Your task to perform on an android device: Search for vegetarian restaurants on Maps Image 0: 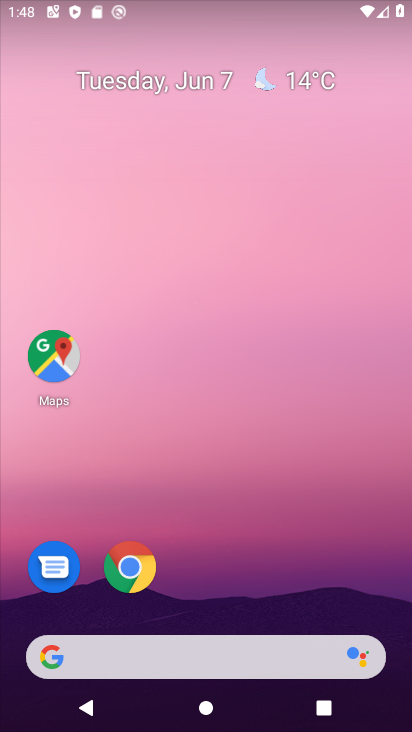
Step 0: drag from (275, 581) to (327, 3)
Your task to perform on an android device: Search for vegetarian restaurants on Maps Image 1: 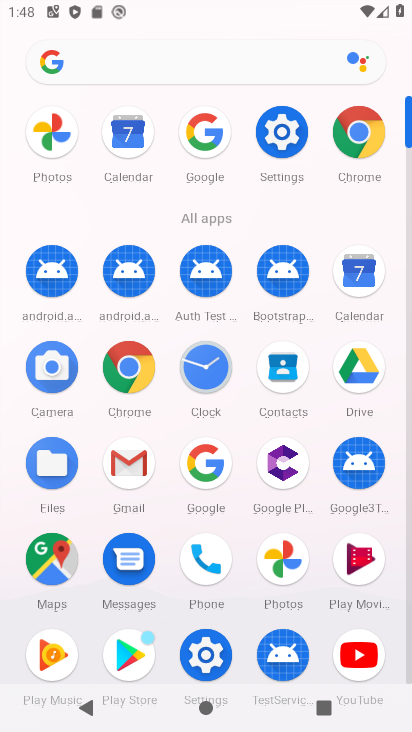
Step 1: drag from (398, 563) to (366, 145)
Your task to perform on an android device: Search for vegetarian restaurants on Maps Image 2: 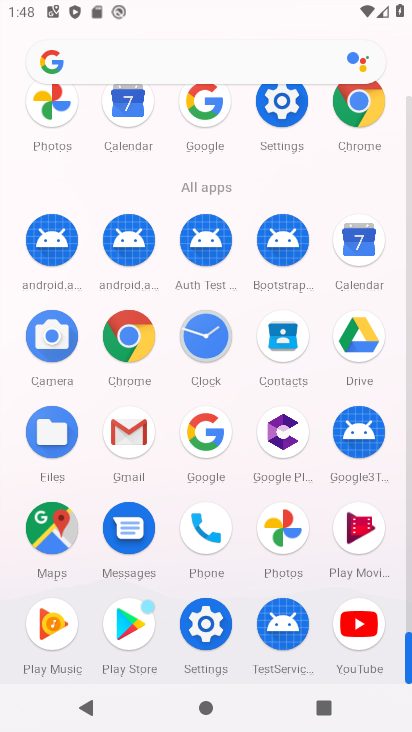
Step 2: click (24, 549)
Your task to perform on an android device: Search for vegetarian restaurants on Maps Image 3: 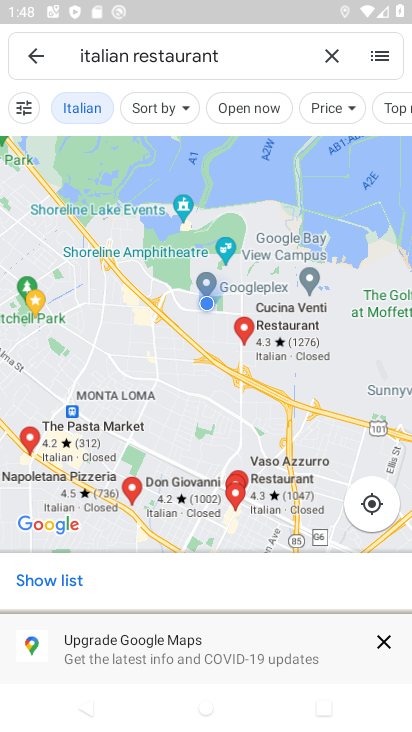
Step 3: click (333, 56)
Your task to perform on an android device: Search for vegetarian restaurants on Maps Image 4: 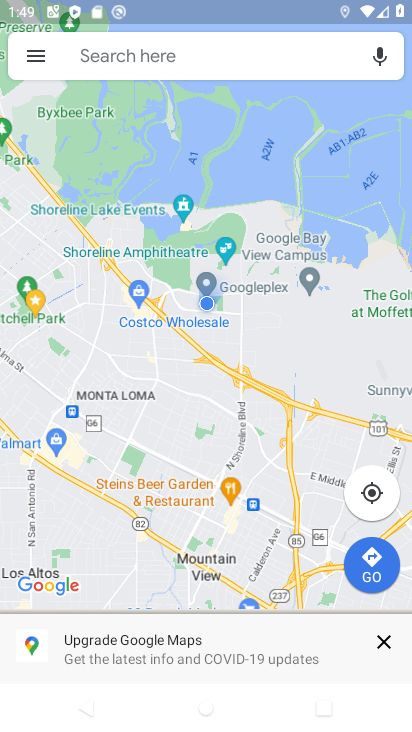
Step 4: click (255, 63)
Your task to perform on an android device: Search for vegetarian restaurants on Maps Image 5: 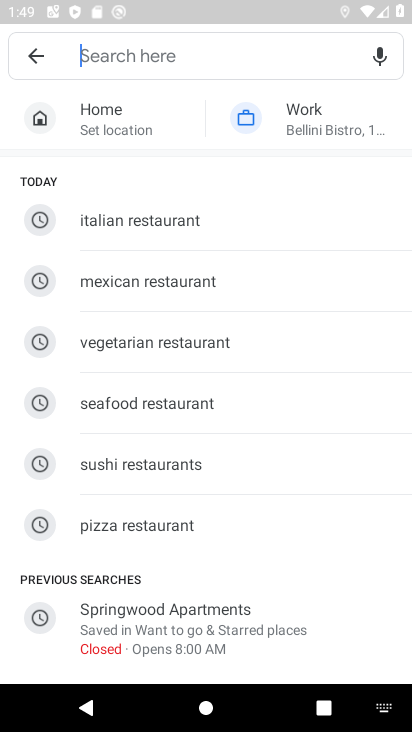
Step 5: click (179, 349)
Your task to perform on an android device: Search for vegetarian restaurants on Maps Image 6: 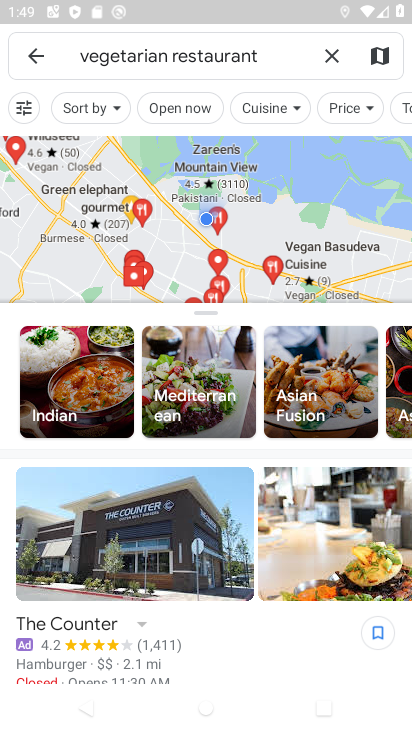
Step 6: task complete